Your task to perform on an android device: turn off airplane mode Image 0: 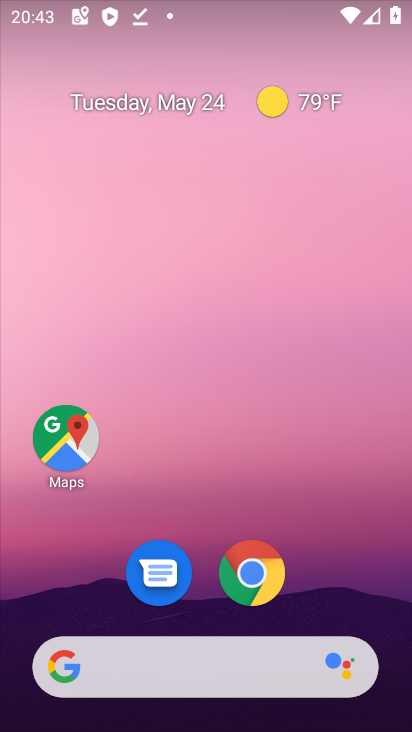
Step 0: drag from (304, 615) to (169, 92)
Your task to perform on an android device: turn off airplane mode Image 1: 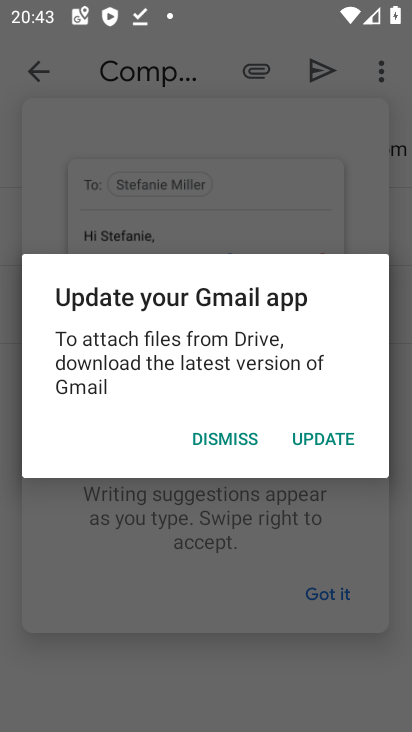
Step 1: click (241, 433)
Your task to perform on an android device: turn off airplane mode Image 2: 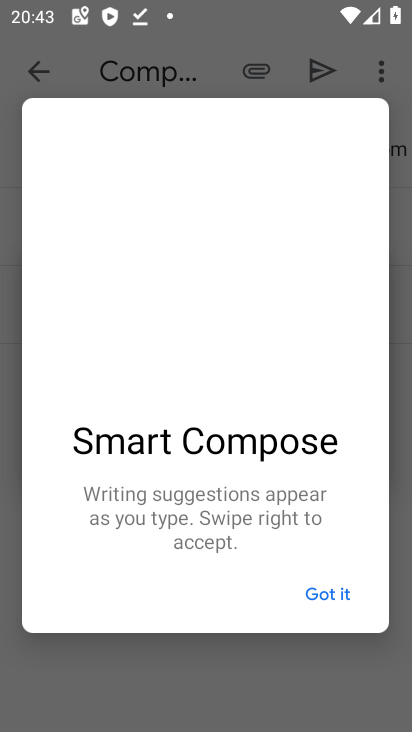
Step 2: click (315, 587)
Your task to perform on an android device: turn off airplane mode Image 3: 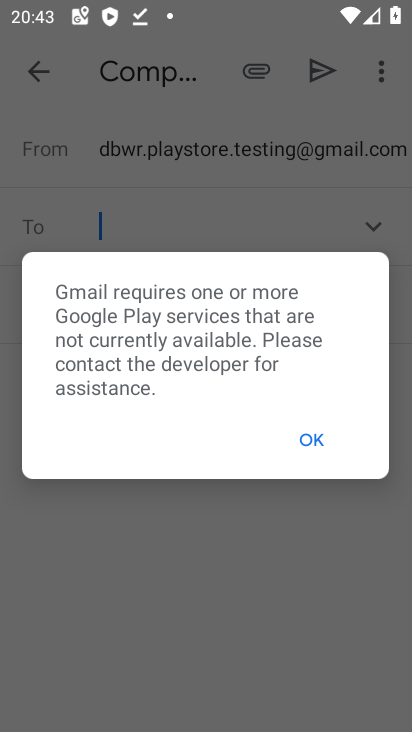
Step 3: click (314, 435)
Your task to perform on an android device: turn off airplane mode Image 4: 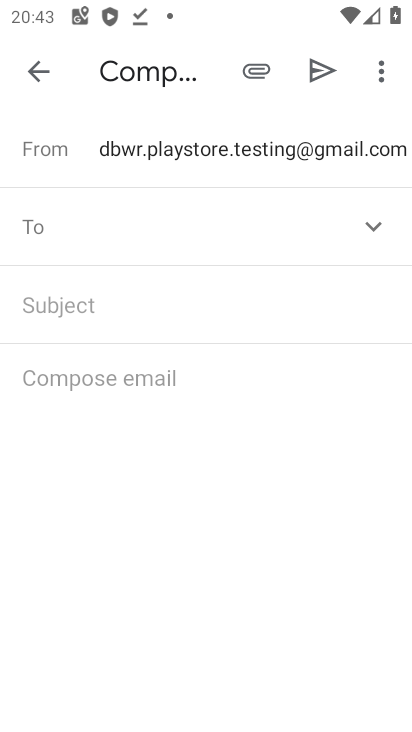
Step 4: click (29, 67)
Your task to perform on an android device: turn off airplane mode Image 5: 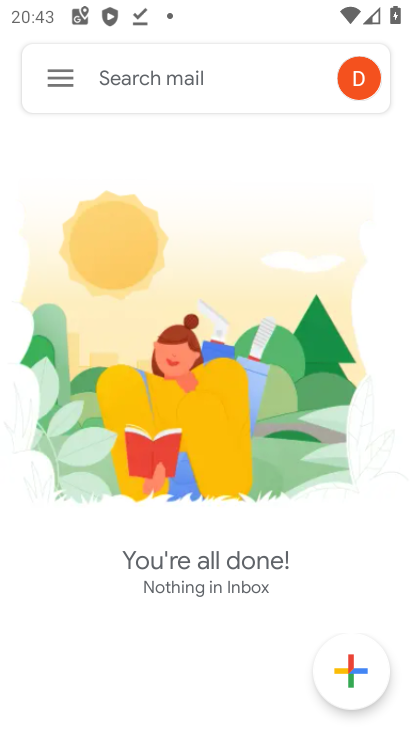
Step 5: press home button
Your task to perform on an android device: turn off airplane mode Image 6: 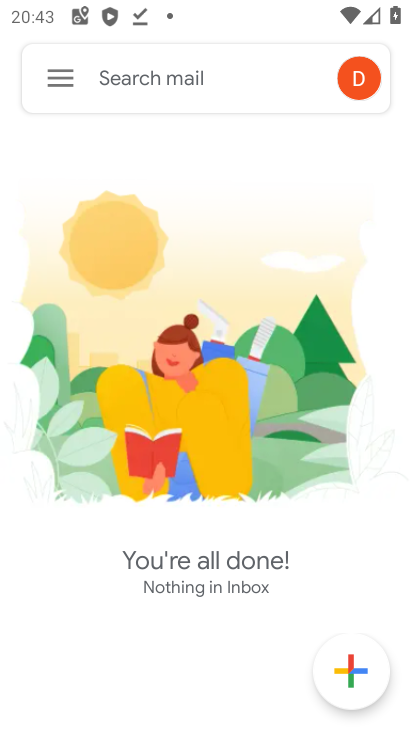
Step 6: press home button
Your task to perform on an android device: turn off airplane mode Image 7: 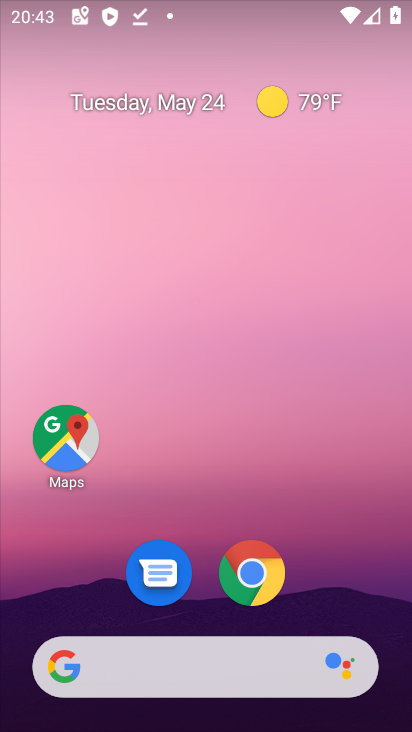
Step 7: drag from (303, 637) to (106, 73)
Your task to perform on an android device: turn off airplane mode Image 8: 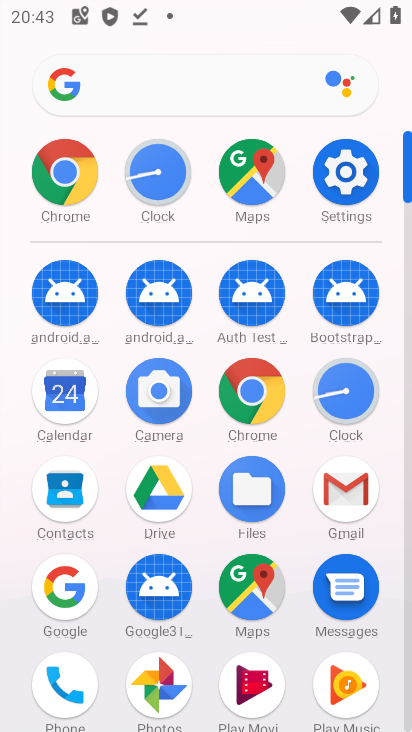
Step 8: click (50, 175)
Your task to perform on an android device: turn off airplane mode Image 9: 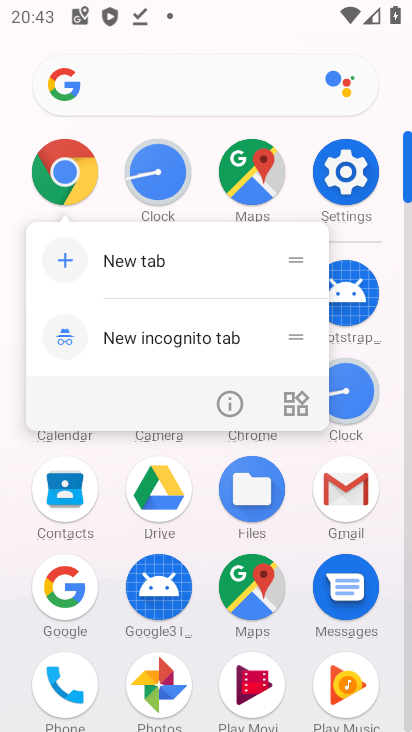
Step 9: click (51, 155)
Your task to perform on an android device: turn off airplane mode Image 10: 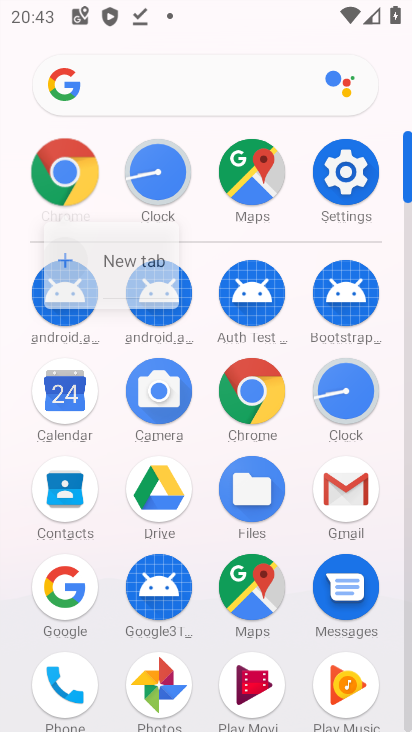
Step 10: click (50, 153)
Your task to perform on an android device: turn off airplane mode Image 11: 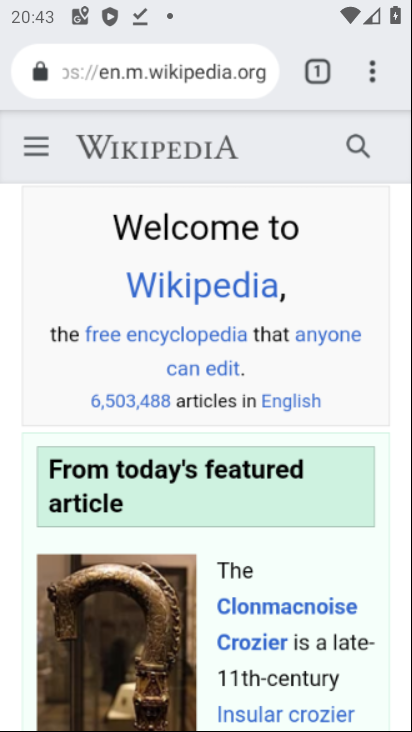
Step 11: click (53, 155)
Your task to perform on an android device: turn off airplane mode Image 12: 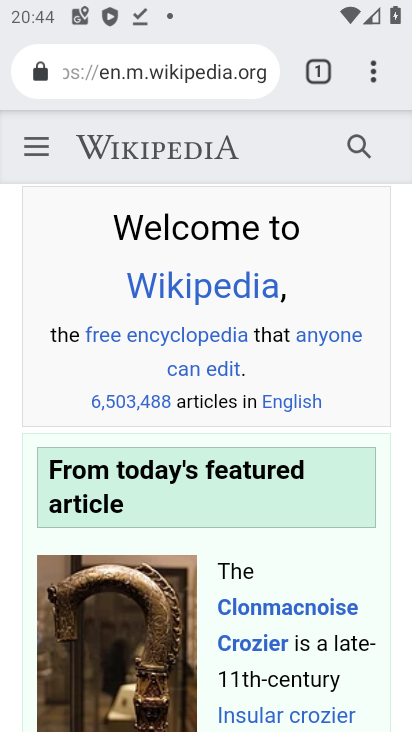
Step 12: press home button
Your task to perform on an android device: turn off airplane mode Image 13: 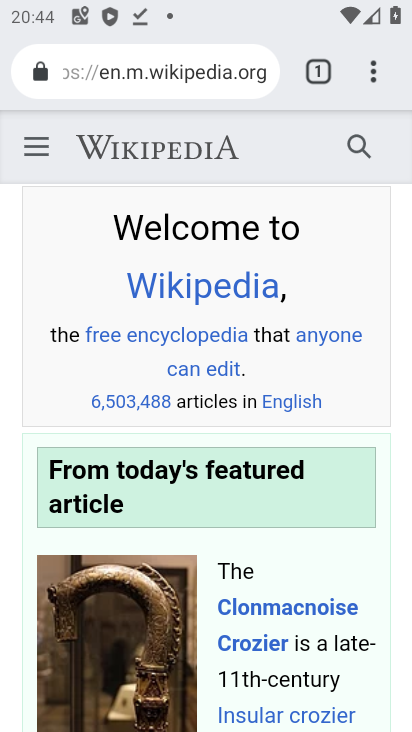
Step 13: press home button
Your task to perform on an android device: turn off airplane mode Image 14: 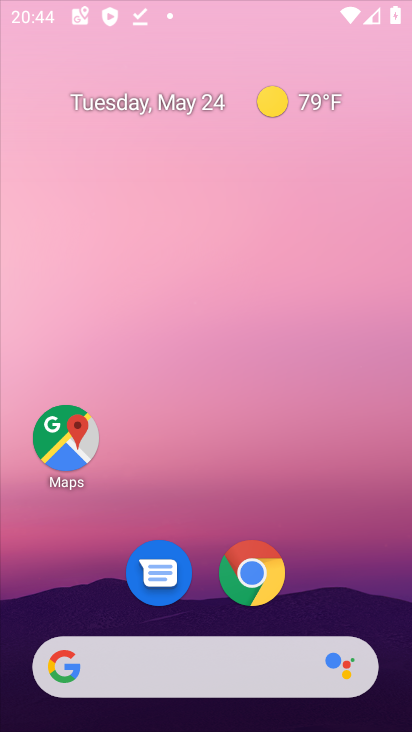
Step 14: press home button
Your task to perform on an android device: turn off airplane mode Image 15: 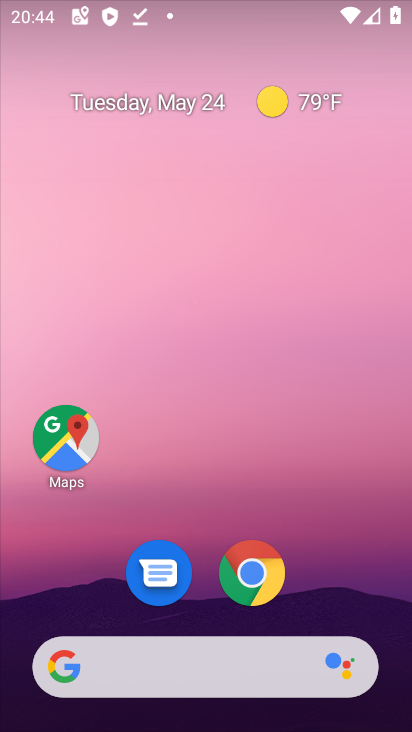
Step 15: press home button
Your task to perform on an android device: turn off airplane mode Image 16: 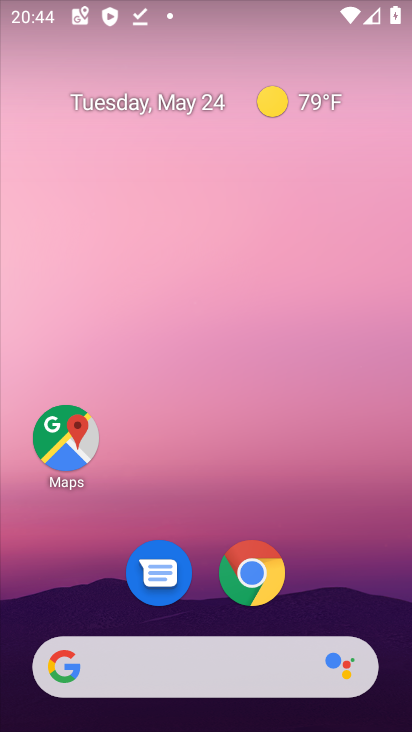
Step 16: press home button
Your task to perform on an android device: turn off airplane mode Image 17: 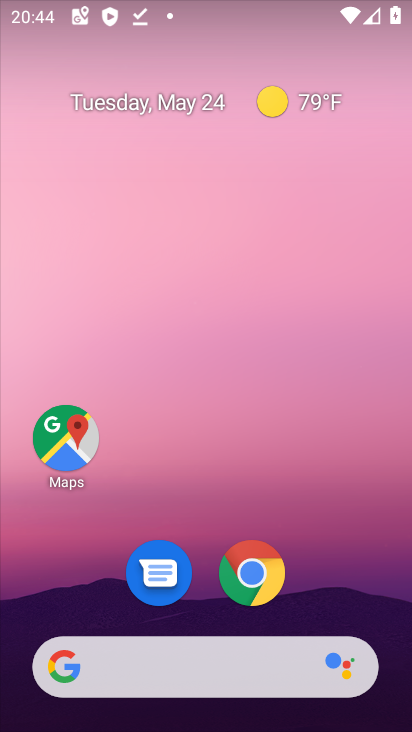
Step 17: drag from (380, 672) to (173, 201)
Your task to perform on an android device: turn off airplane mode Image 18: 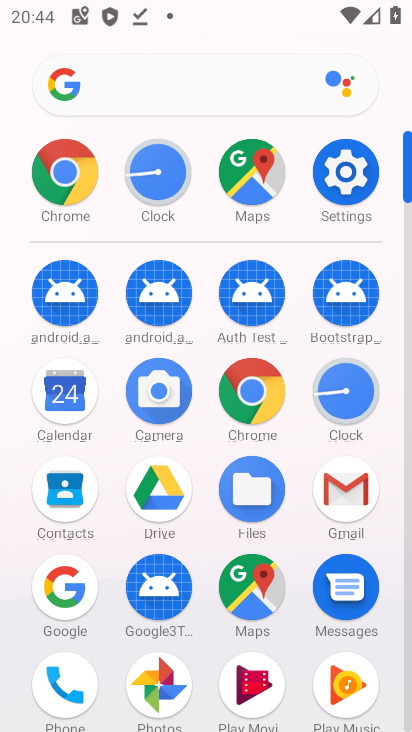
Step 18: click (330, 178)
Your task to perform on an android device: turn off airplane mode Image 19: 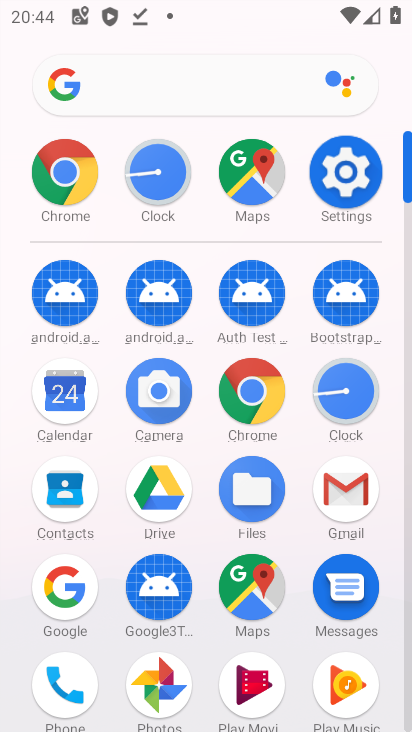
Step 19: click (330, 178)
Your task to perform on an android device: turn off airplane mode Image 20: 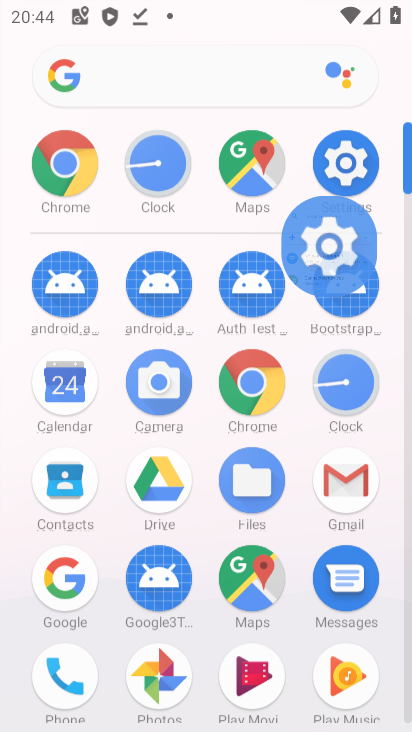
Step 20: click (331, 178)
Your task to perform on an android device: turn off airplane mode Image 21: 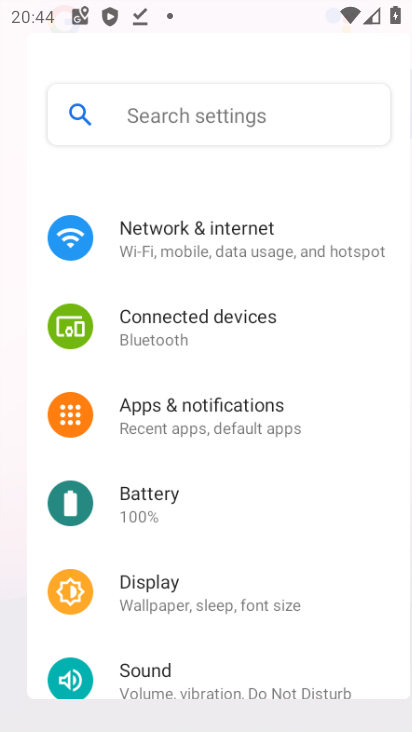
Step 21: click (331, 178)
Your task to perform on an android device: turn off airplane mode Image 22: 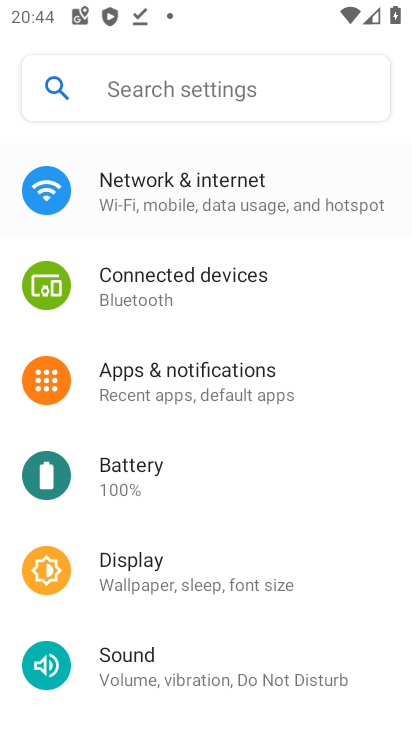
Step 22: click (332, 178)
Your task to perform on an android device: turn off airplane mode Image 23: 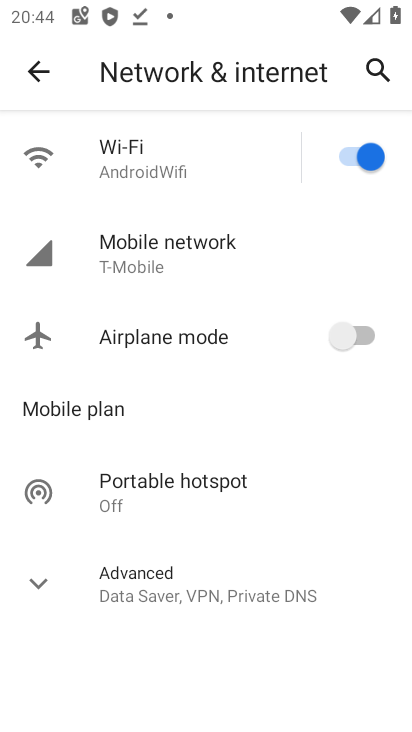
Step 23: click (33, 65)
Your task to perform on an android device: turn off airplane mode Image 24: 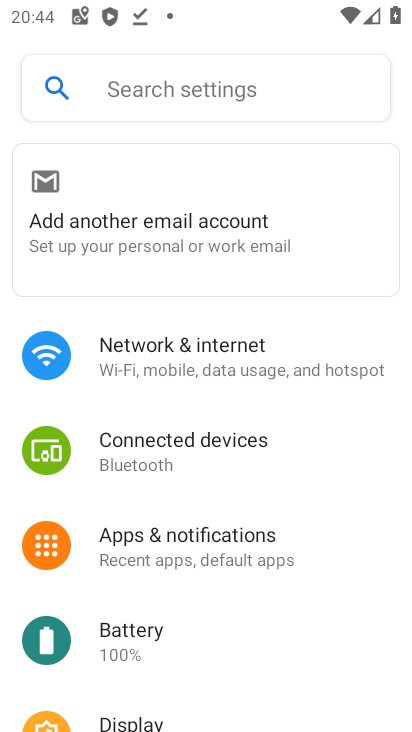
Step 24: click (210, 343)
Your task to perform on an android device: turn off airplane mode Image 25: 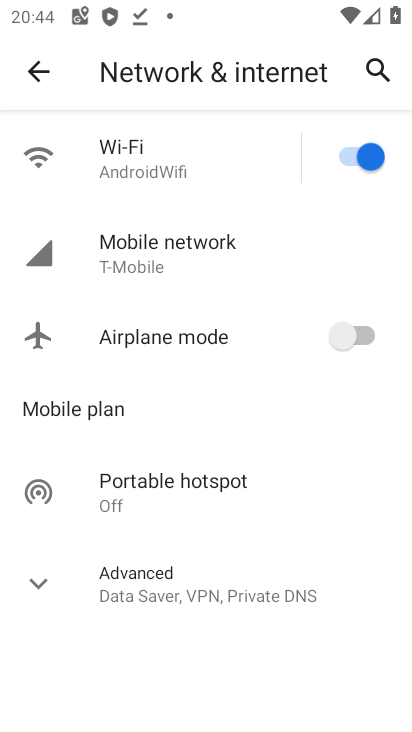
Step 25: click (372, 316)
Your task to perform on an android device: turn off airplane mode Image 26: 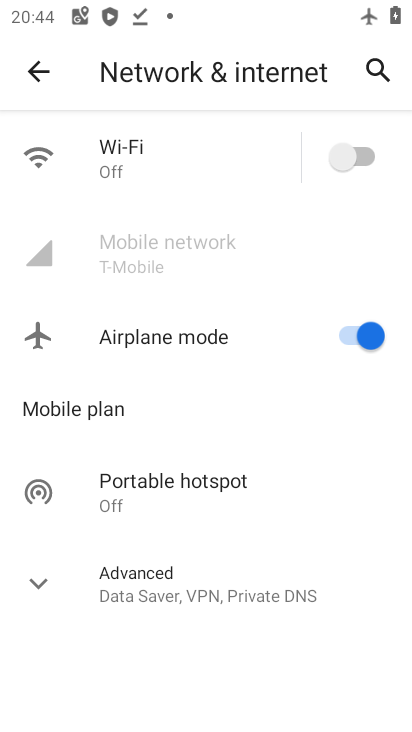
Step 26: task complete